Your task to perform on an android device: When is my next meeting? Image 0: 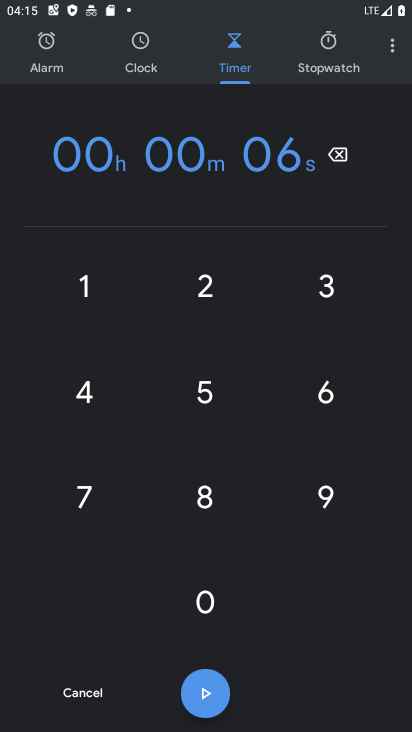
Step 0: press home button
Your task to perform on an android device: When is my next meeting? Image 1: 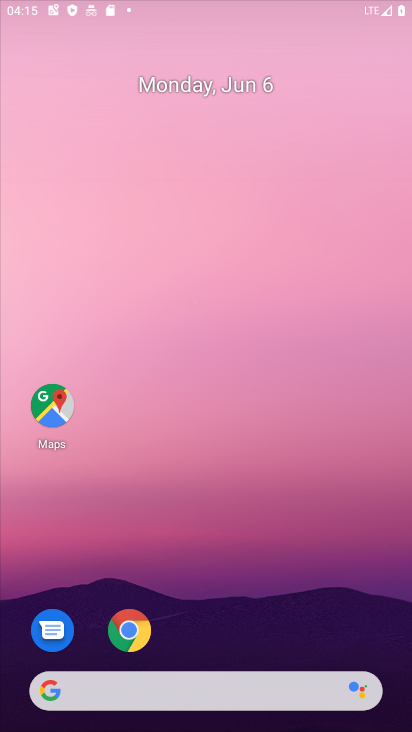
Step 1: drag from (222, 600) to (195, 4)
Your task to perform on an android device: When is my next meeting? Image 2: 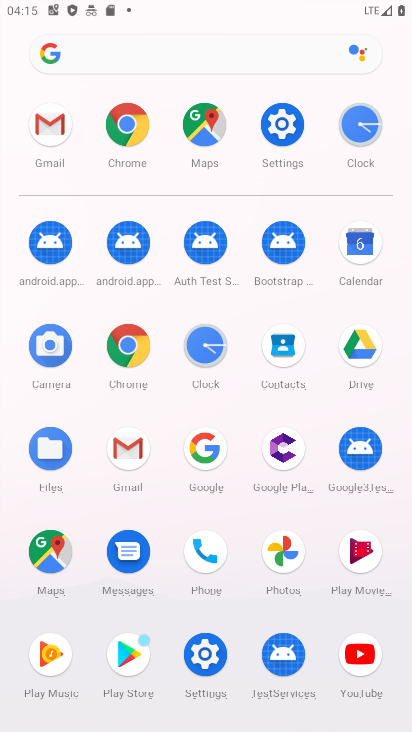
Step 2: click (347, 227)
Your task to perform on an android device: When is my next meeting? Image 3: 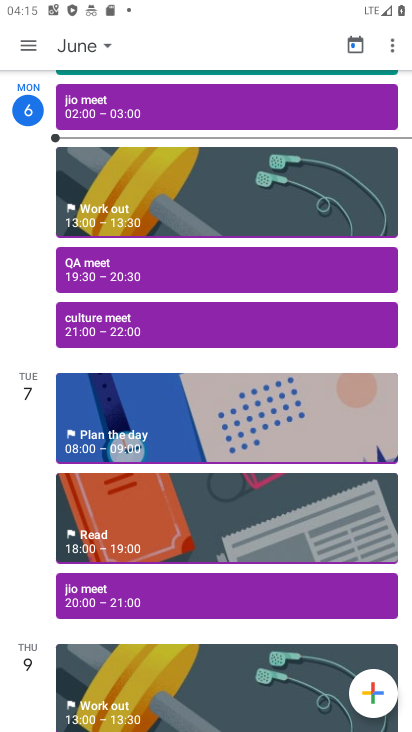
Step 3: task complete